Your task to perform on an android device: change the clock style Image 0: 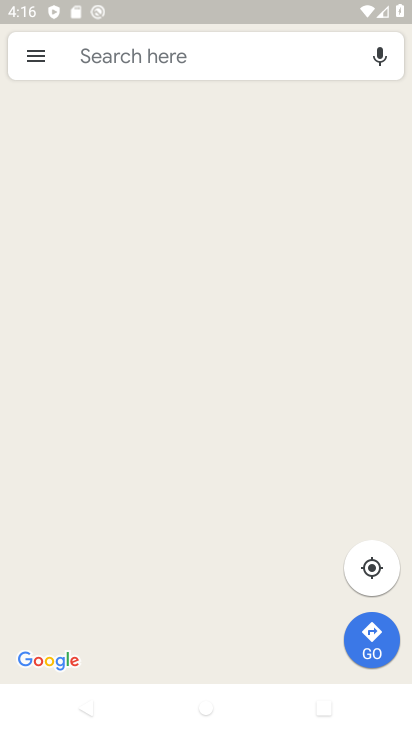
Step 0: click (75, 426)
Your task to perform on an android device: change the clock style Image 1: 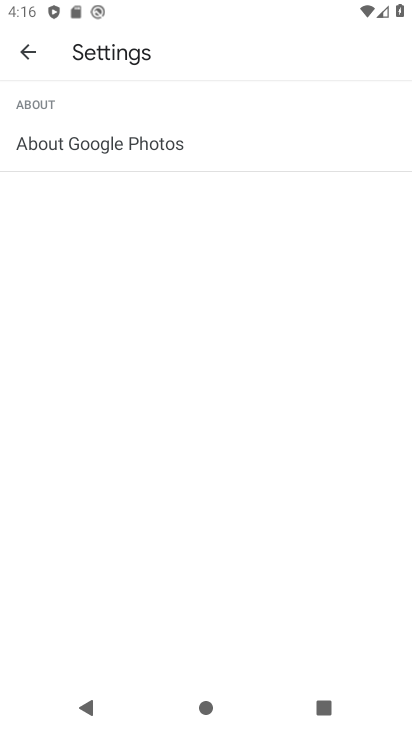
Step 1: press home button
Your task to perform on an android device: change the clock style Image 2: 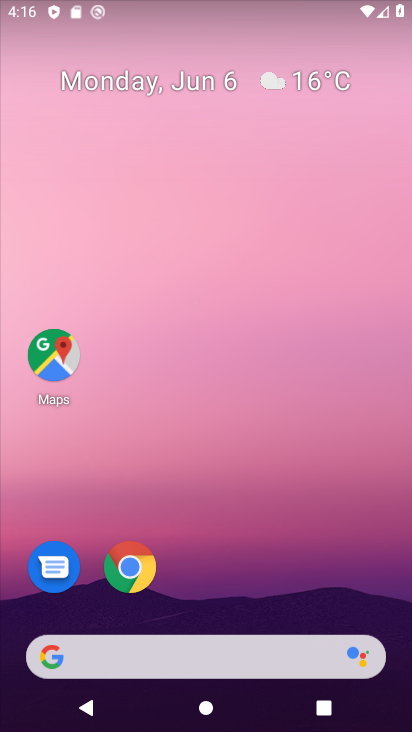
Step 2: drag from (264, 610) to (364, 209)
Your task to perform on an android device: change the clock style Image 3: 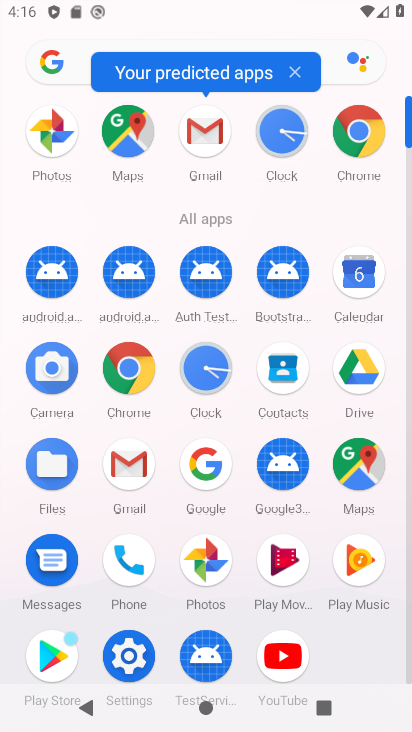
Step 3: click (205, 369)
Your task to perform on an android device: change the clock style Image 4: 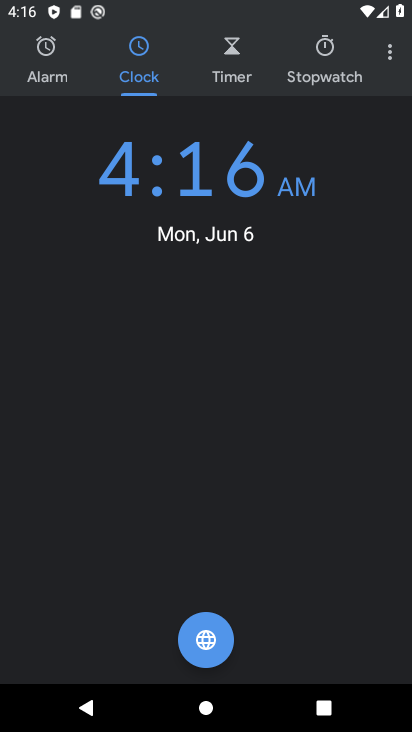
Step 4: click (388, 68)
Your task to perform on an android device: change the clock style Image 5: 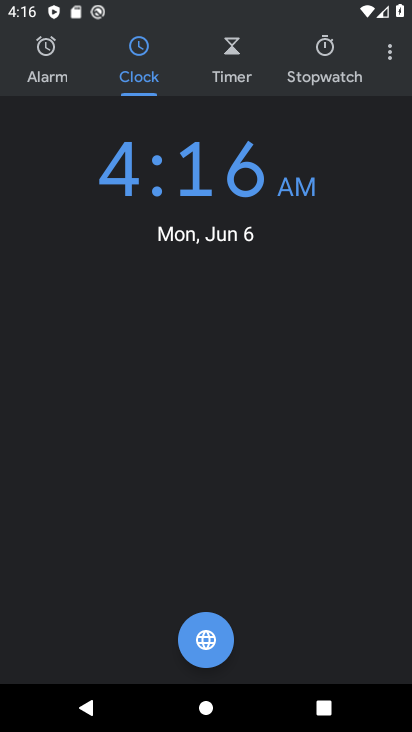
Step 5: click (388, 63)
Your task to perform on an android device: change the clock style Image 6: 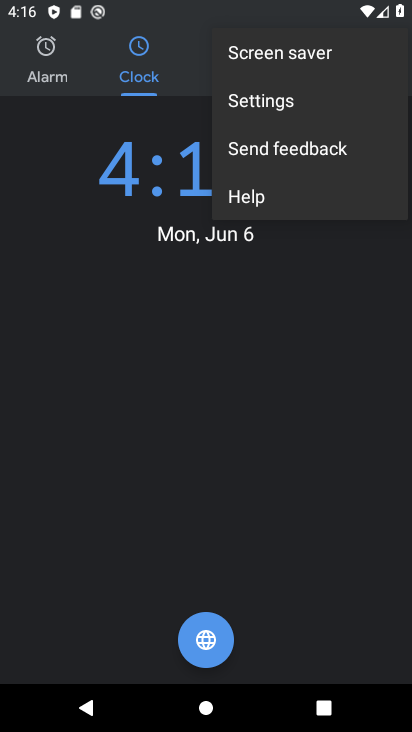
Step 6: click (365, 90)
Your task to perform on an android device: change the clock style Image 7: 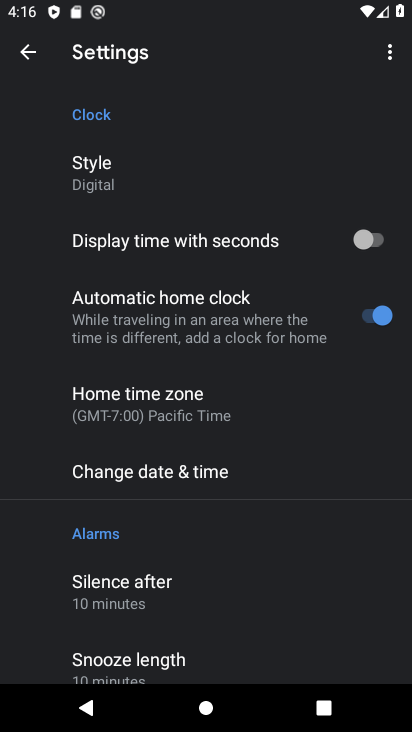
Step 7: click (195, 179)
Your task to perform on an android device: change the clock style Image 8: 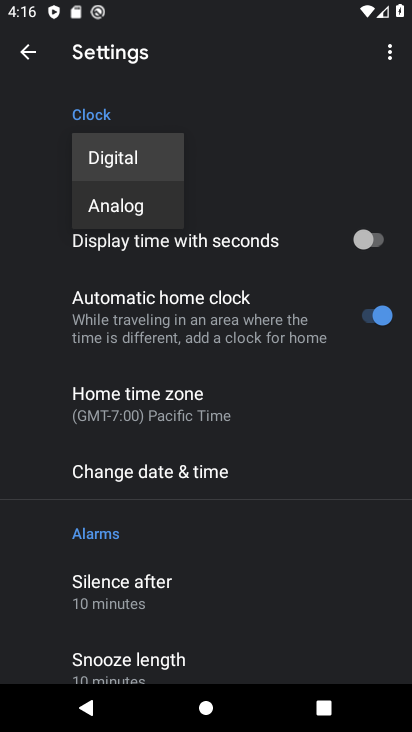
Step 8: click (161, 210)
Your task to perform on an android device: change the clock style Image 9: 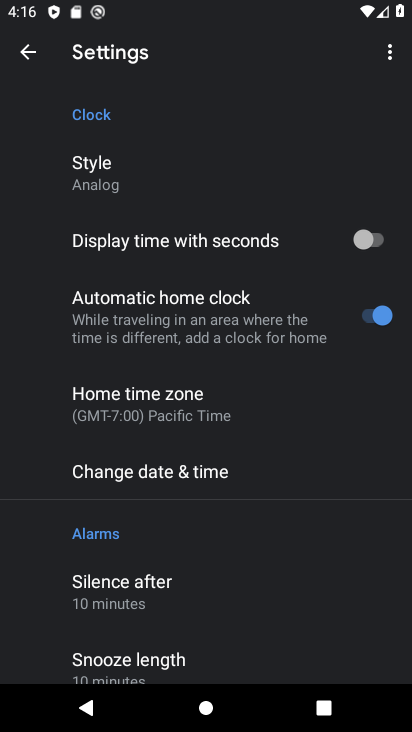
Step 9: task complete